Your task to perform on an android device: toggle notification dots Image 0: 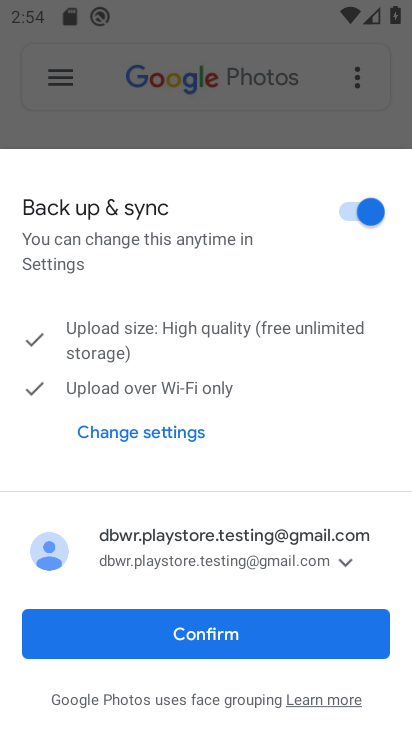
Step 0: press home button
Your task to perform on an android device: toggle notification dots Image 1: 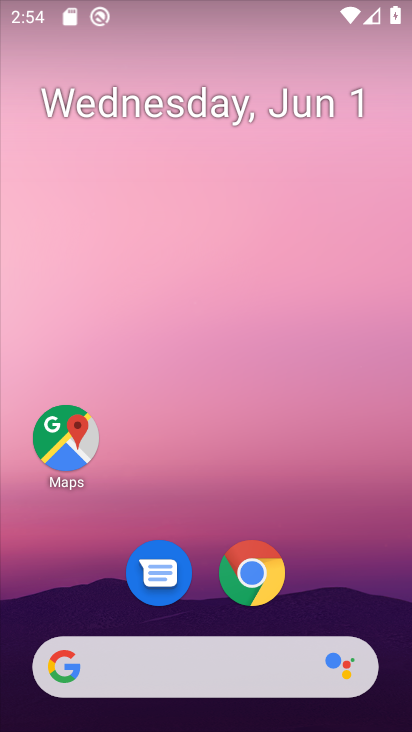
Step 1: drag from (142, 684) to (233, 2)
Your task to perform on an android device: toggle notification dots Image 2: 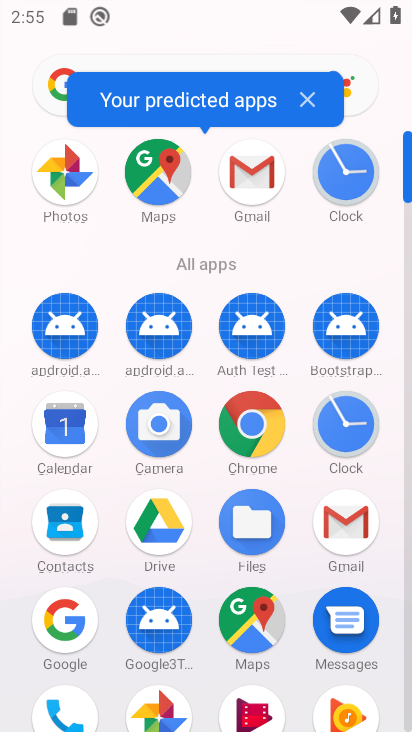
Step 2: drag from (193, 693) to (197, 282)
Your task to perform on an android device: toggle notification dots Image 3: 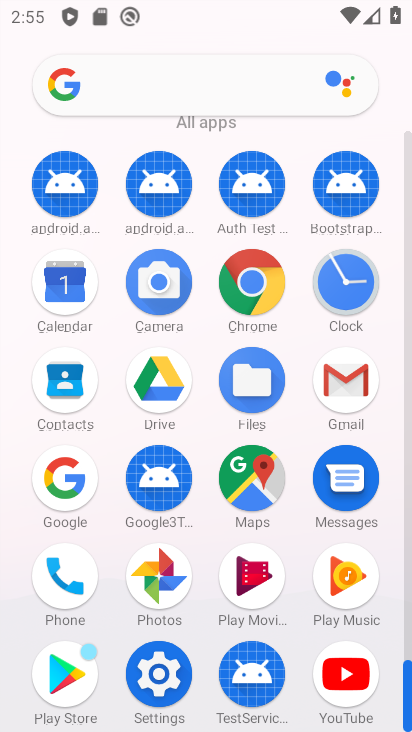
Step 3: click (168, 690)
Your task to perform on an android device: toggle notification dots Image 4: 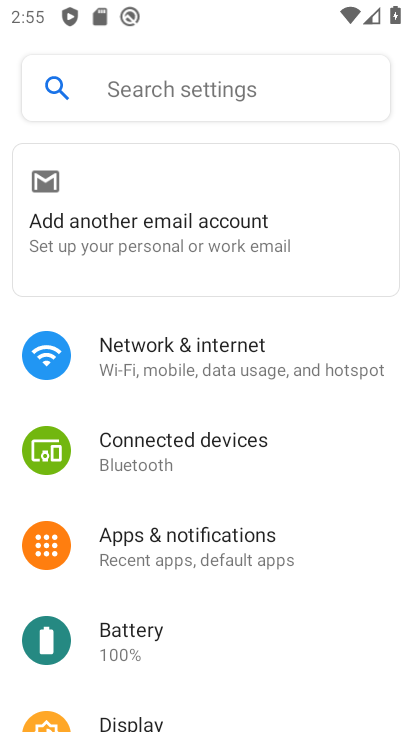
Step 4: click (221, 543)
Your task to perform on an android device: toggle notification dots Image 5: 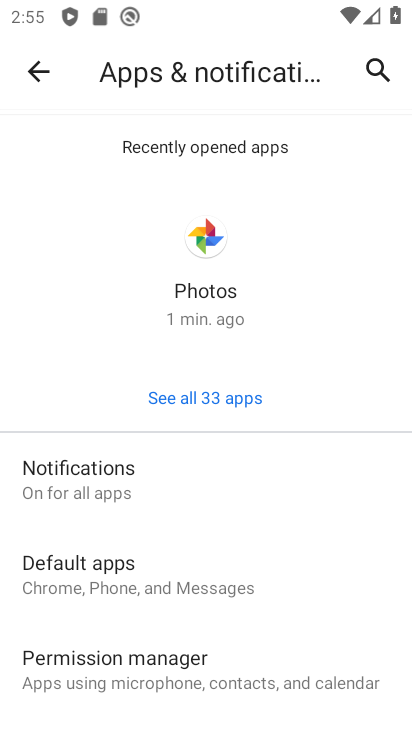
Step 5: click (127, 488)
Your task to perform on an android device: toggle notification dots Image 6: 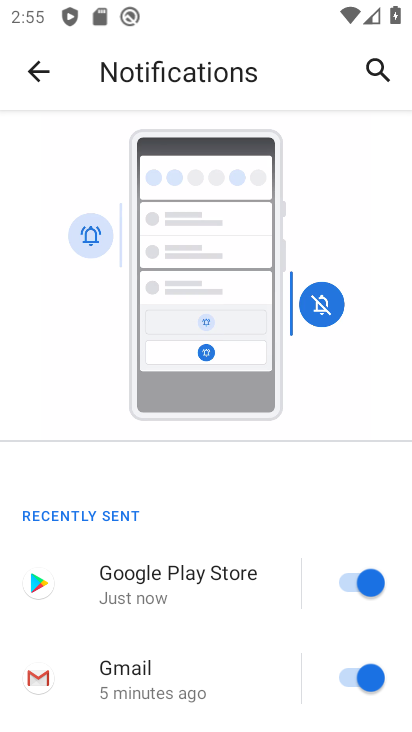
Step 6: drag from (246, 694) to (263, 133)
Your task to perform on an android device: toggle notification dots Image 7: 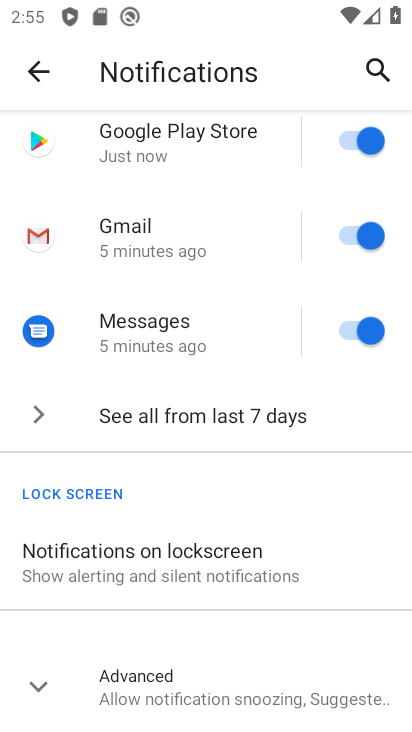
Step 7: click (179, 684)
Your task to perform on an android device: toggle notification dots Image 8: 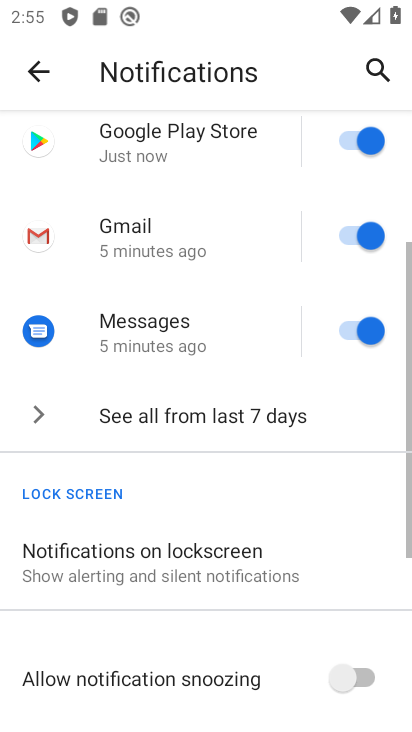
Step 8: drag from (215, 616) to (241, 287)
Your task to perform on an android device: toggle notification dots Image 9: 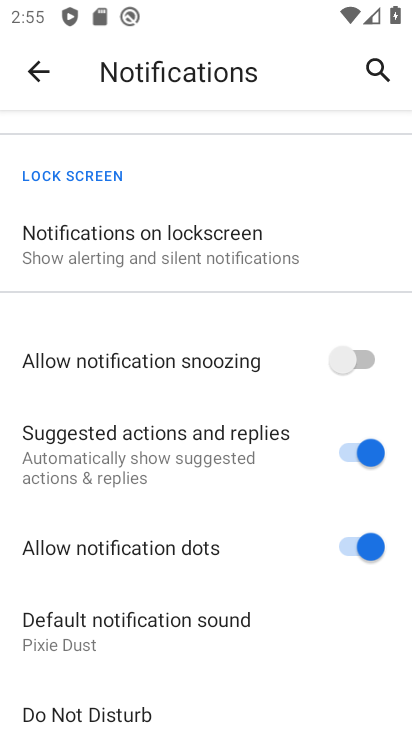
Step 9: click (369, 548)
Your task to perform on an android device: toggle notification dots Image 10: 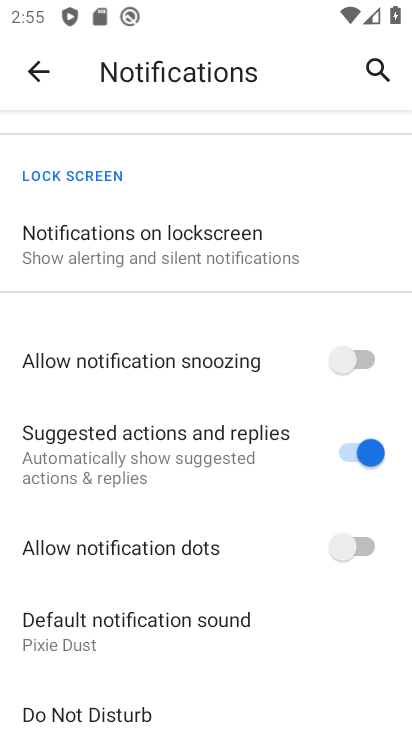
Step 10: task complete